Your task to perform on an android device: Open Google Chrome Image 0: 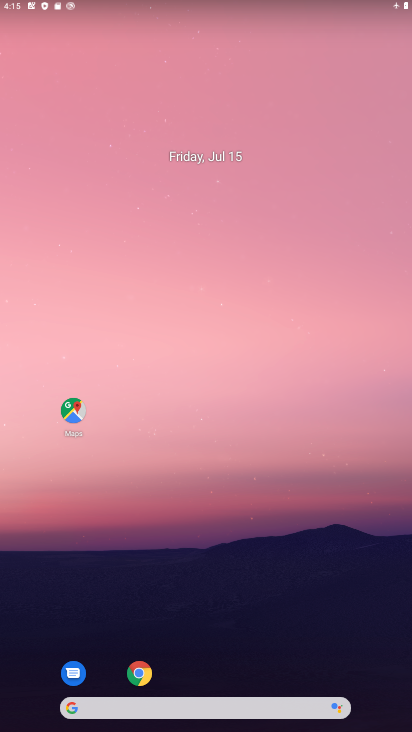
Step 0: drag from (249, 671) to (245, 309)
Your task to perform on an android device: Open Google Chrome Image 1: 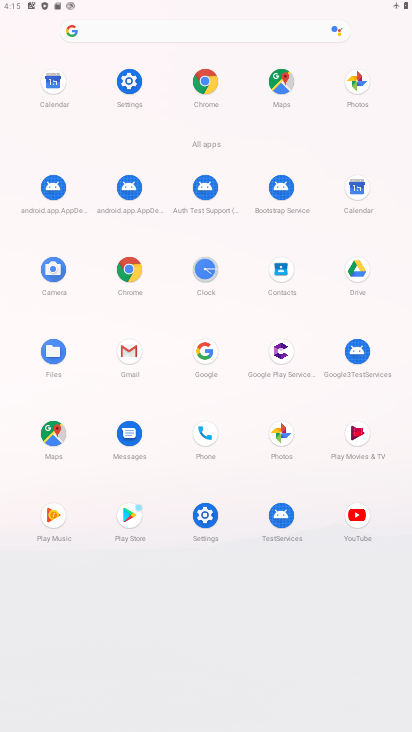
Step 1: click (210, 357)
Your task to perform on an android device: Open Google Chrome Image 2: 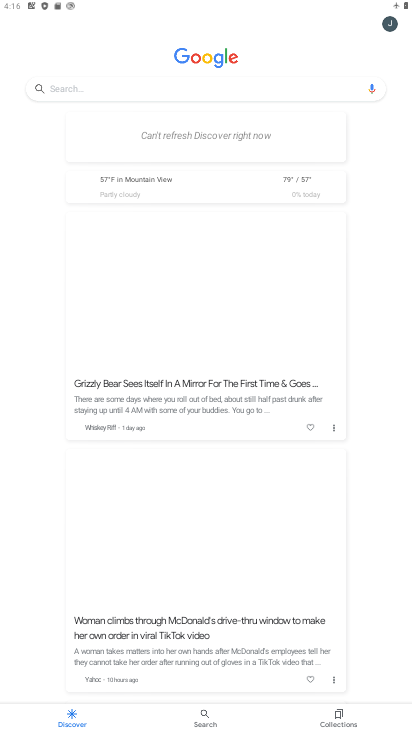
Step 2: task complete